Your task to perform on an android device: Open Yahoo.com Image 0: 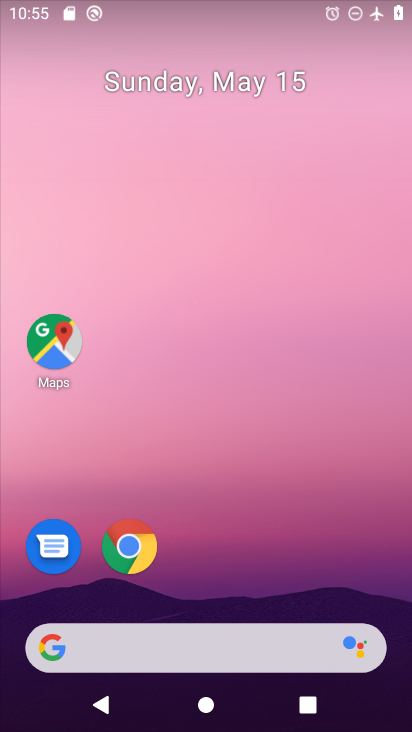
Step 0: click (130, 544)
Your task to perform on an android device: Open Yahoo.com Image 1: 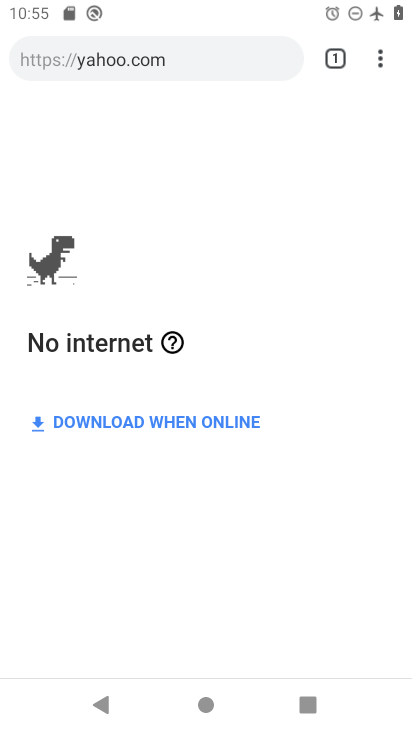
Step 1: task complete